Your task to perform on an android device: Show me popular games on the Play Store Image 0: 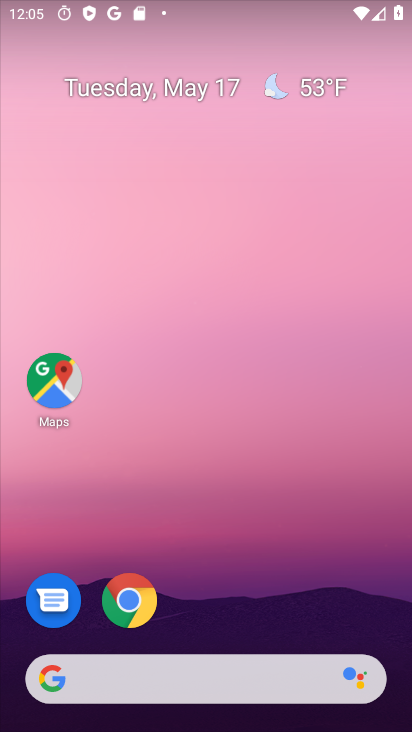
Step 0: drag from (232, 624) to (286, 84)
Your task to perform on an android device: Show me popular games on the Play Store Image 1: 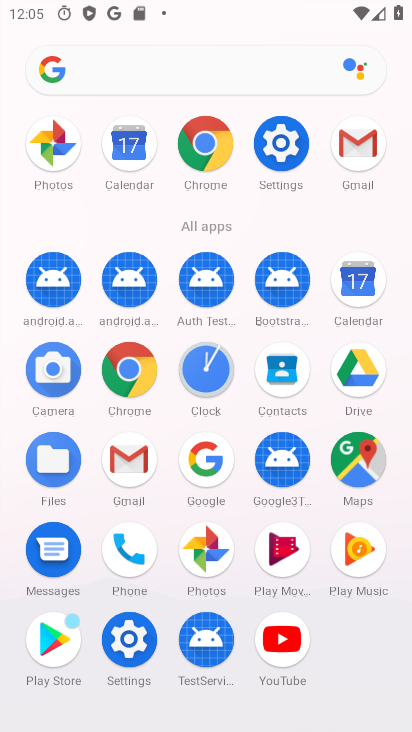
Step 1: click (50, 632)
Your task to perform on an android device: Show me popular games on the Play Store Image 2: 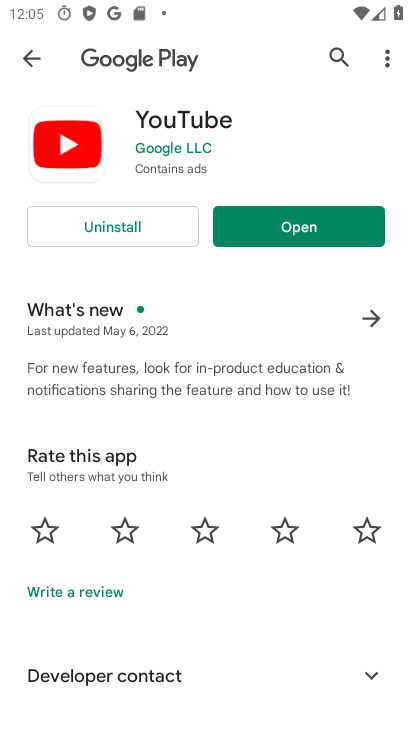
Step 2: click (31, 58)
Your task to perform on an android device: Show me popular games on the Play Store Image 3: 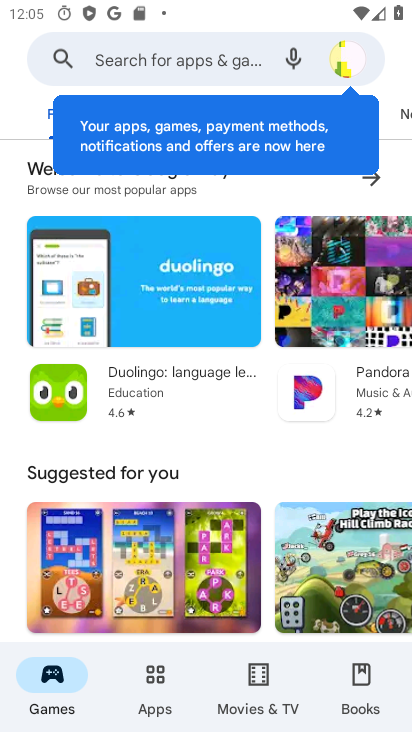
Step 3: click (39, 684)
Your task to perform on an android device: Show me popular games on the Play Store Image 4: 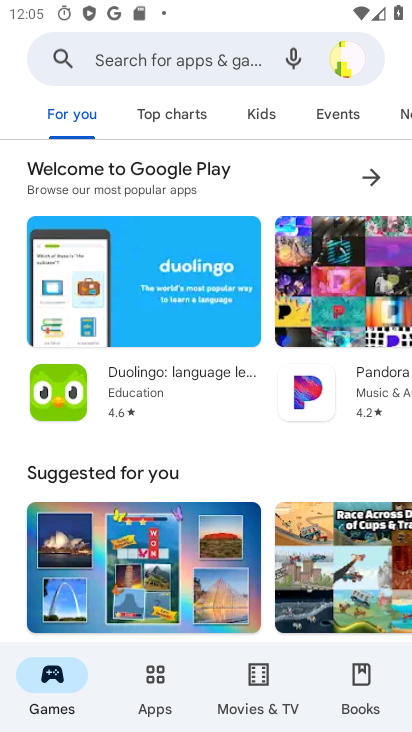
Step 4: click (201, 116)
Your task to perform on an android device: Show me popular games on the Play Store Image 5: 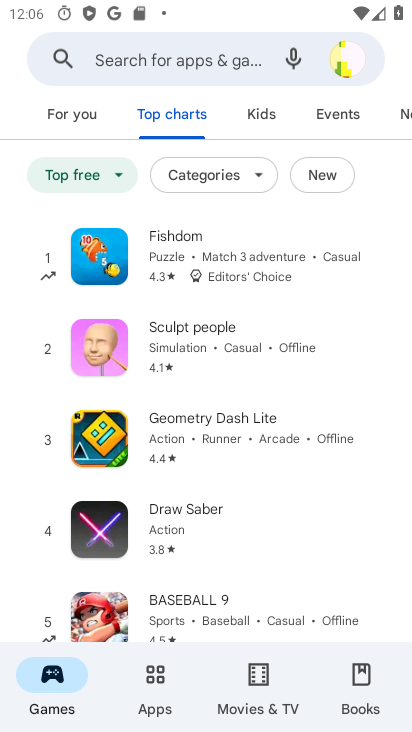
Step 5: task complete